Your task to perform on an android device: Open calendar and show me the fourth week of next month Image 0: 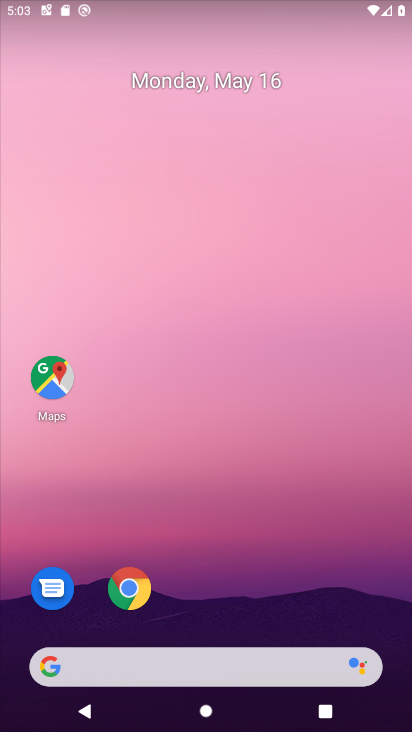
Step 0: drag from (316, 575) to (229, 43)
Your task to perform on an android device: Open calendar and show me the fourth week of next month Image 1: 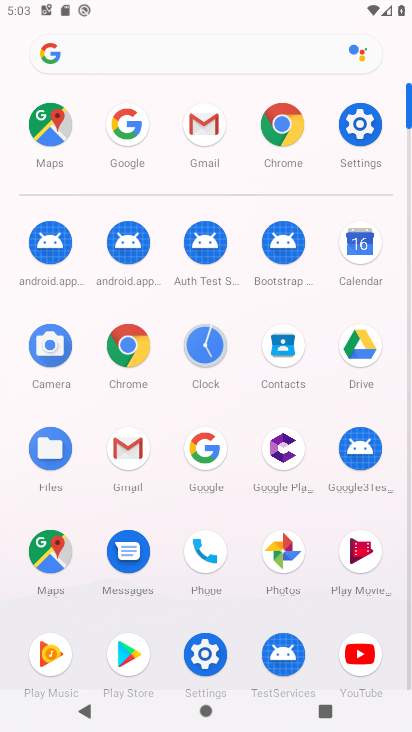
Step 1: click (358, 244)
Your task to perform on an android device: Open calendar and show me the fourth week of next month Image 2: 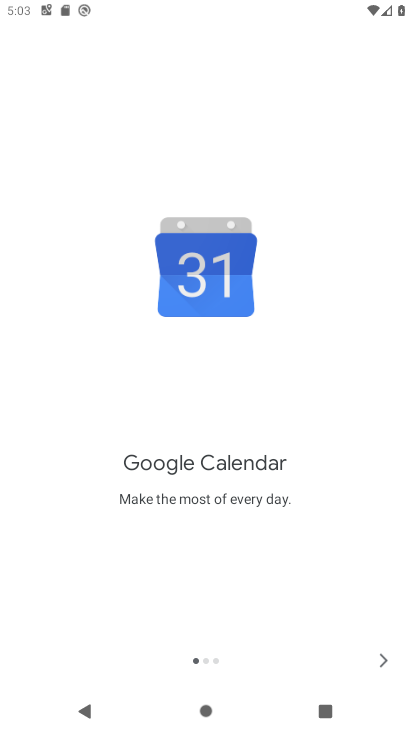
Step 2: click (379, 654)
Your task to perform on an android device: Open calendar and show me the fourth week of next month Image 3: 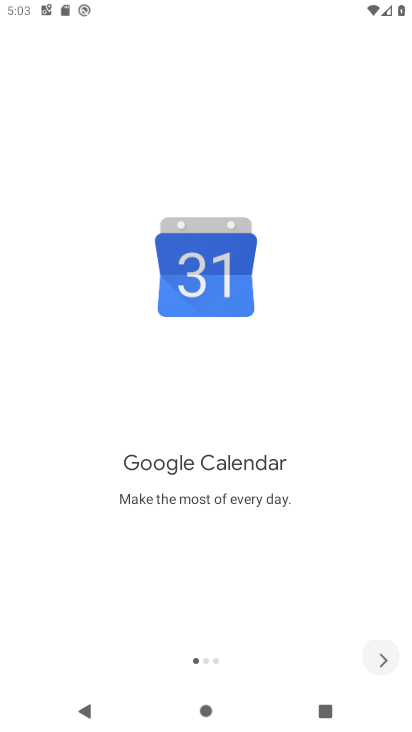
Step 3: click (379, 654)
Your task to perform on an android device: Open calendar and show me the fourth week of next month Image 4: 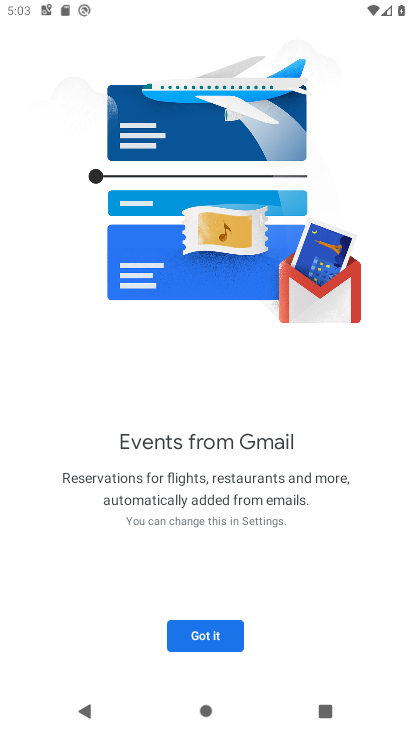
Step 4: click (227, 642)
Your task to perform on an android device: Open calendar and show me the fourth week of next month Image 5: 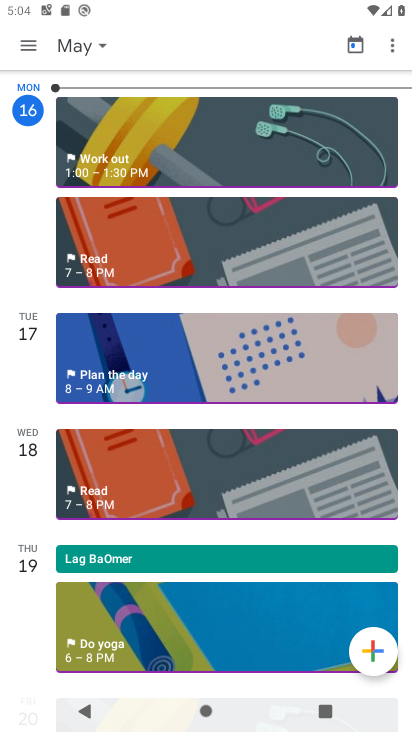
Step 5: click (28, 50)
Your task to perform on an android device: Open calendar and show me the fourth week of next month Image 6: 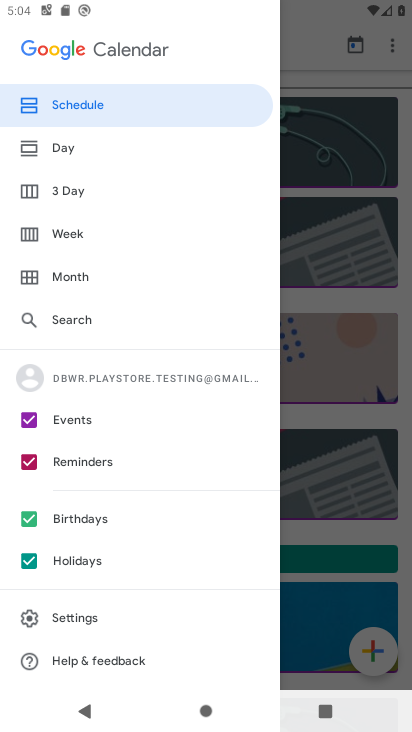
Step 6: click (76, 235)
Your task to perform on an android device: Open calendar and show me the fourth week of next month Image 7: 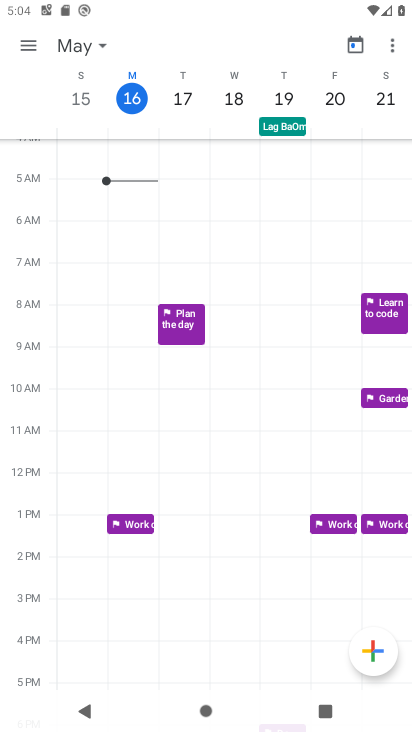
Step 7: click (93, 46)
Your task to perform on an android device: Open calendar and show me the fourth week of next month Image 8: 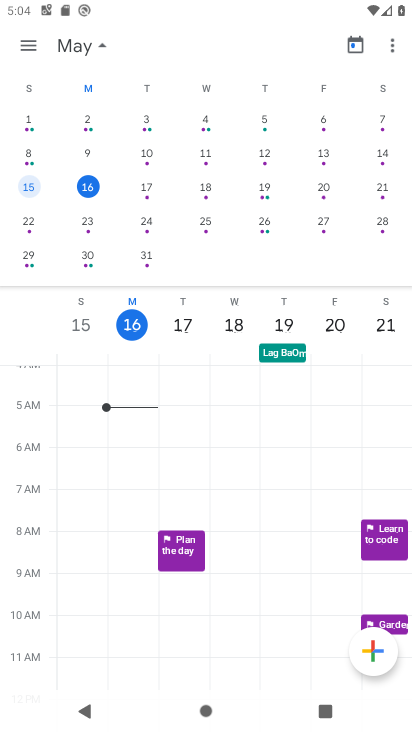
Step 8: drag from (348, 185) to (8, 233)
Your task to perform on an android device: Open calendar and show me the fourth week of next month Image 9: 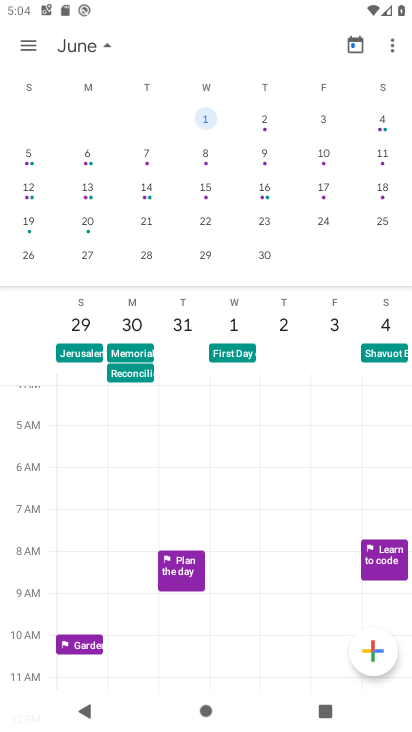
Step 9: click (31, 220)
Your task to perform on an android device: Open calendar and show me the fourth week of next month Image 10: 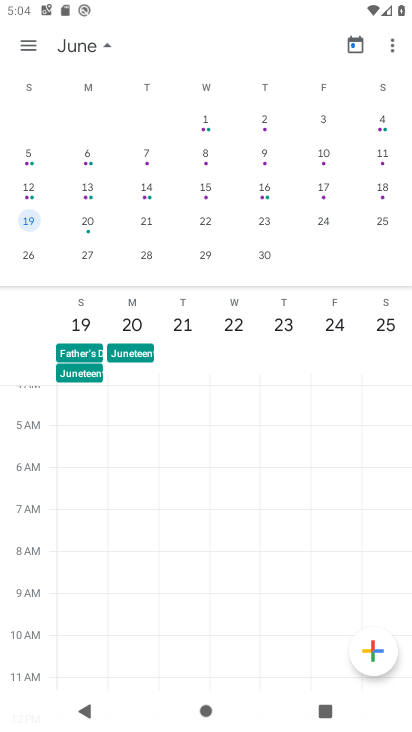
Step 10: task complete